Your task to perform on an android device: Open the phone app and click the voicemail tab. Image 0: 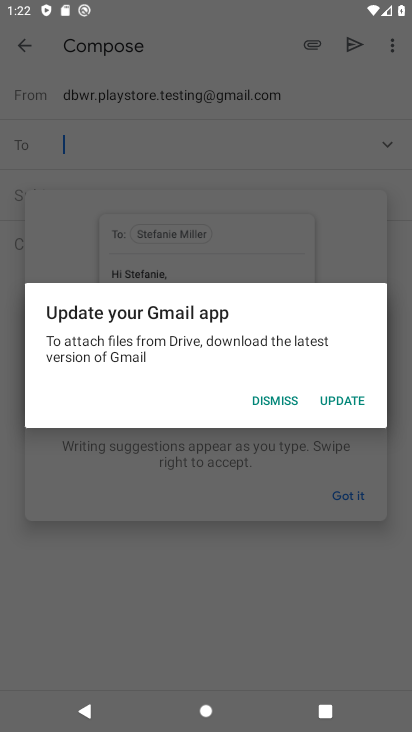
Step 0: press home button
Your task to perform on an android device: Open the phone app and click the voicemail tab. Image 1: 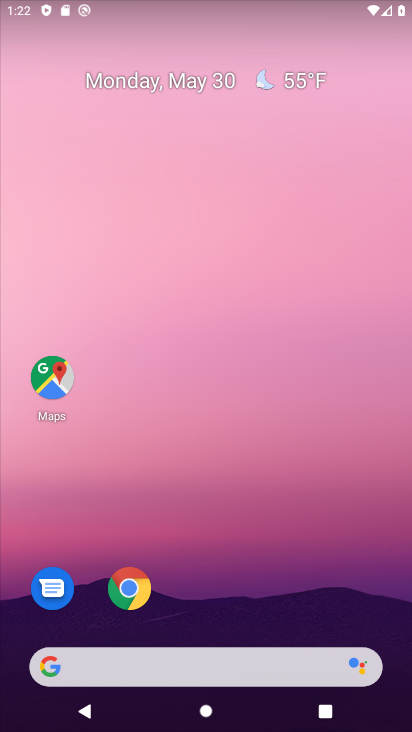
Step 1: drag from (378, 638) to (241, 5)
Your task to perform on an android device: Open the phone app and click the voicemail tab. Image 2: 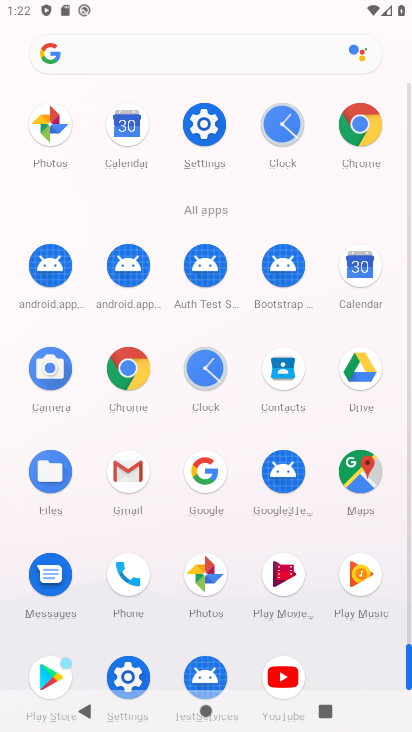
Step 2: click (130, 577)
Your task to perform on an android device: Open the phone app and click the voicemail tab. Image 3: 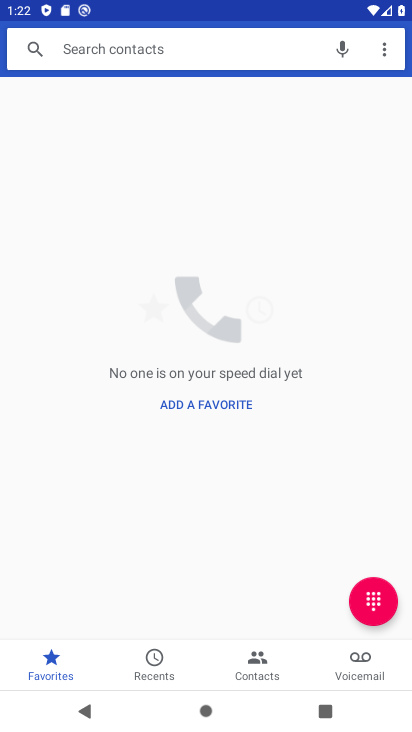
Step 3: click (356, 660)
Your task to perform on an android device: Open the phone app and click the voicemail tab. Image 4: 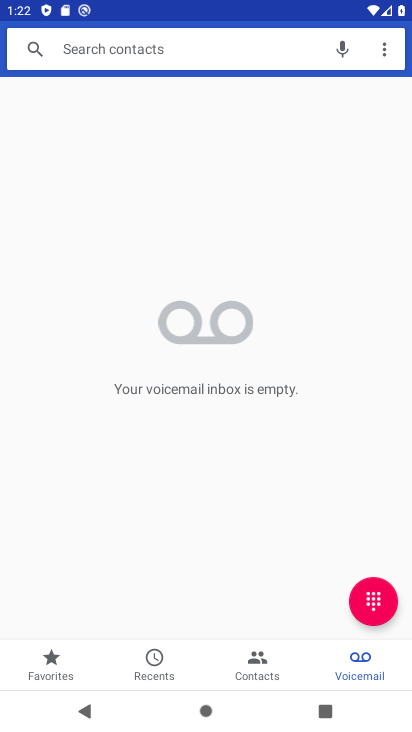
Step 4: task complete